Your task to perform on an android device: Check the weather Image 0: 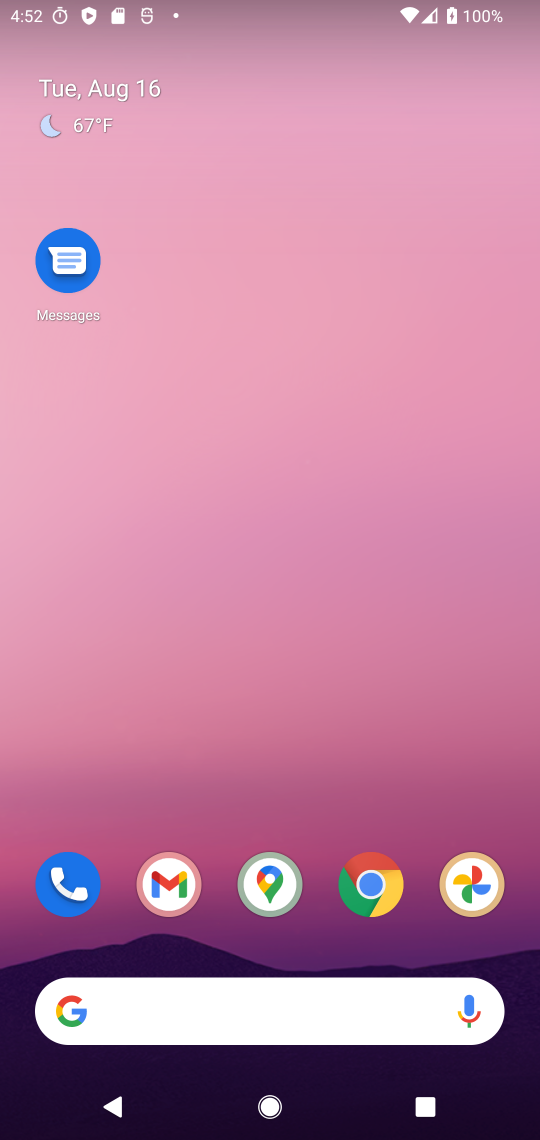
Step 0: click (119, 1017)
Your task to perform on an android device: Check the weather Image 1: 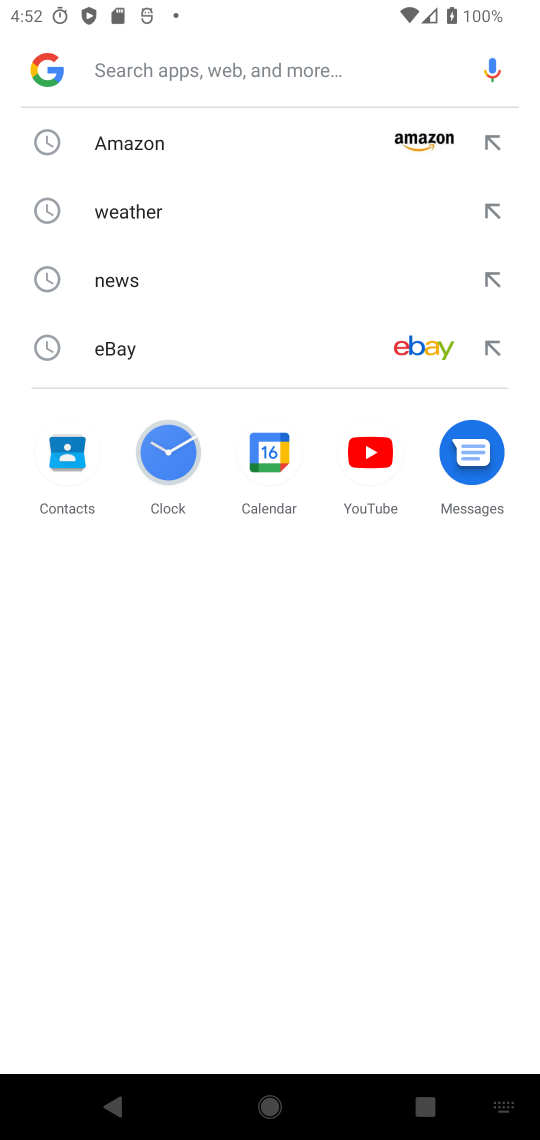
Step 1: type "Check the weather"
Your task to perform on an android device: Check the weather Image 2: 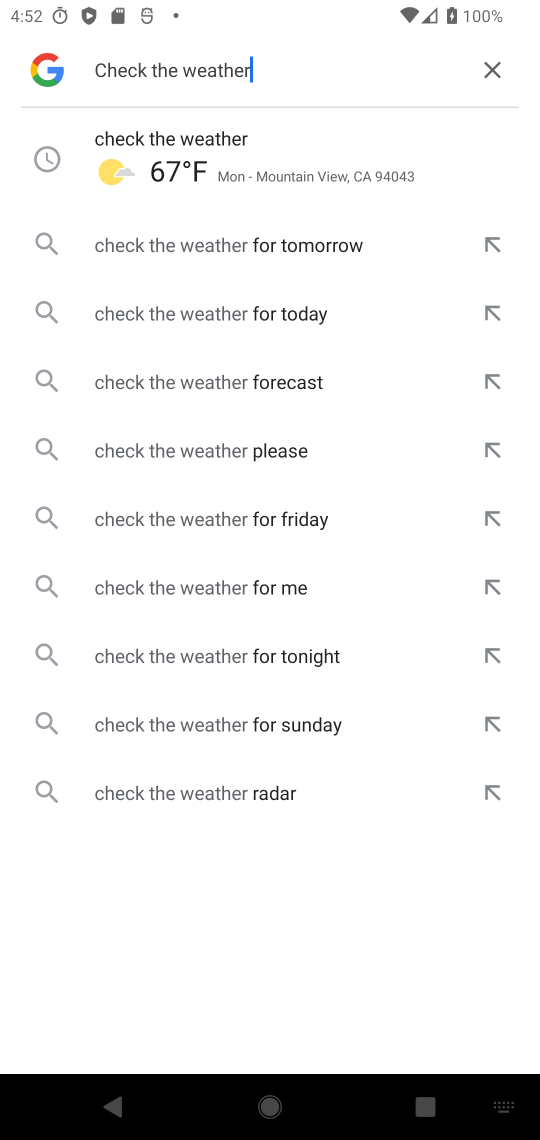
Step 2: click (238, 156)
Your task to perform on an android device: Check the weather Image 3: 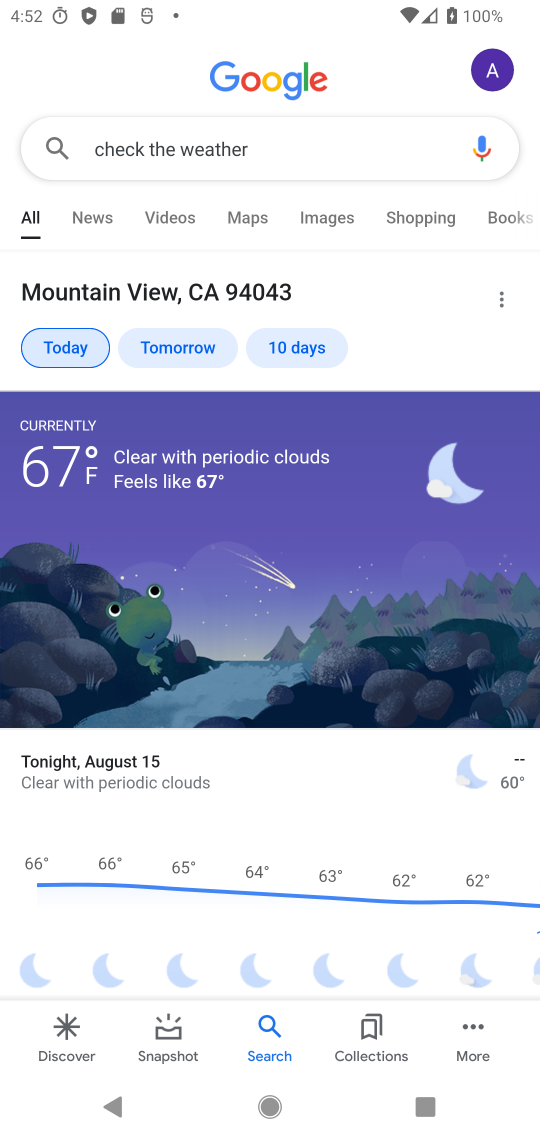
Step 3: task complete